Your task to perform on an android device: Open my contact list Image 0: 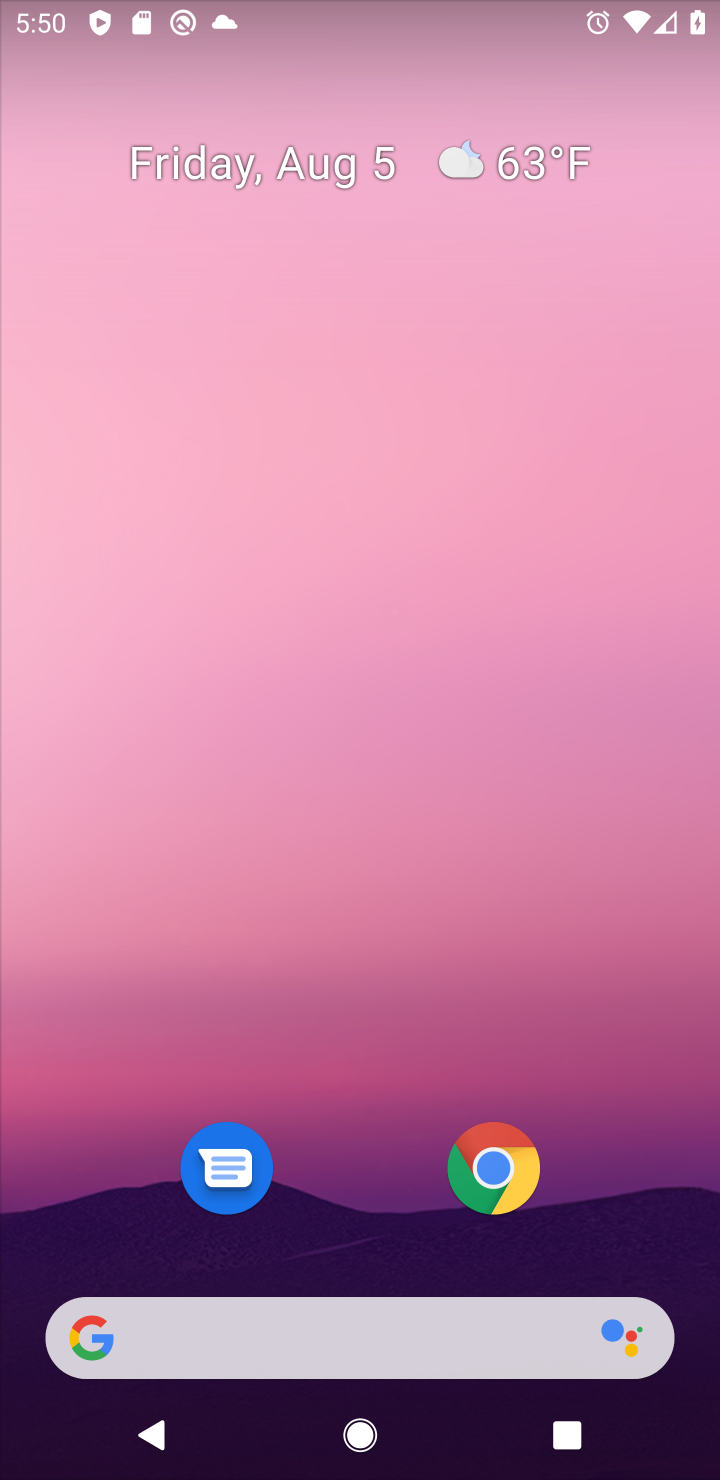
Step 0: drag from (336, 543) to (336, 16)
Your task to perform on an android device: Open my contact list Image 1: 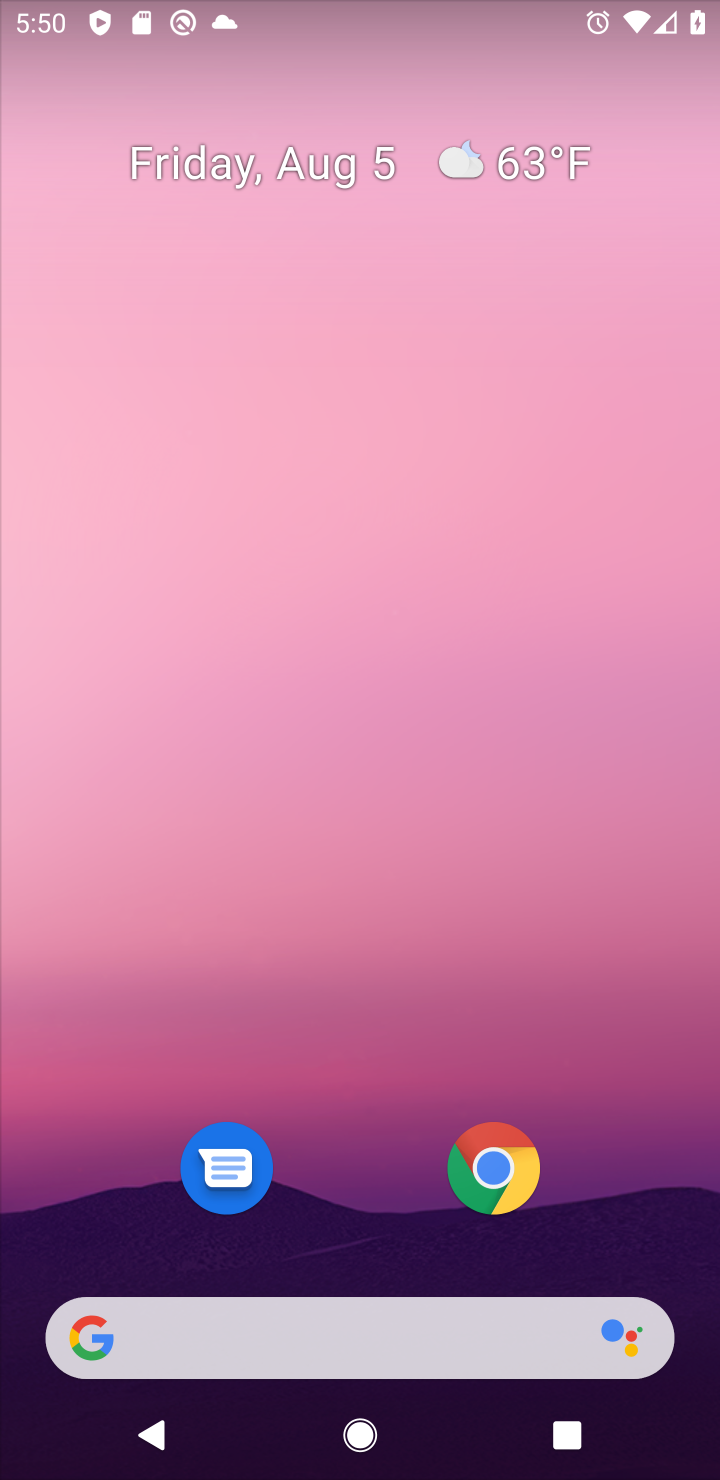
Step 1: drag from (364, 642) to (456, 30)
Your task to perform on an android device: Open my contact list Image 2: 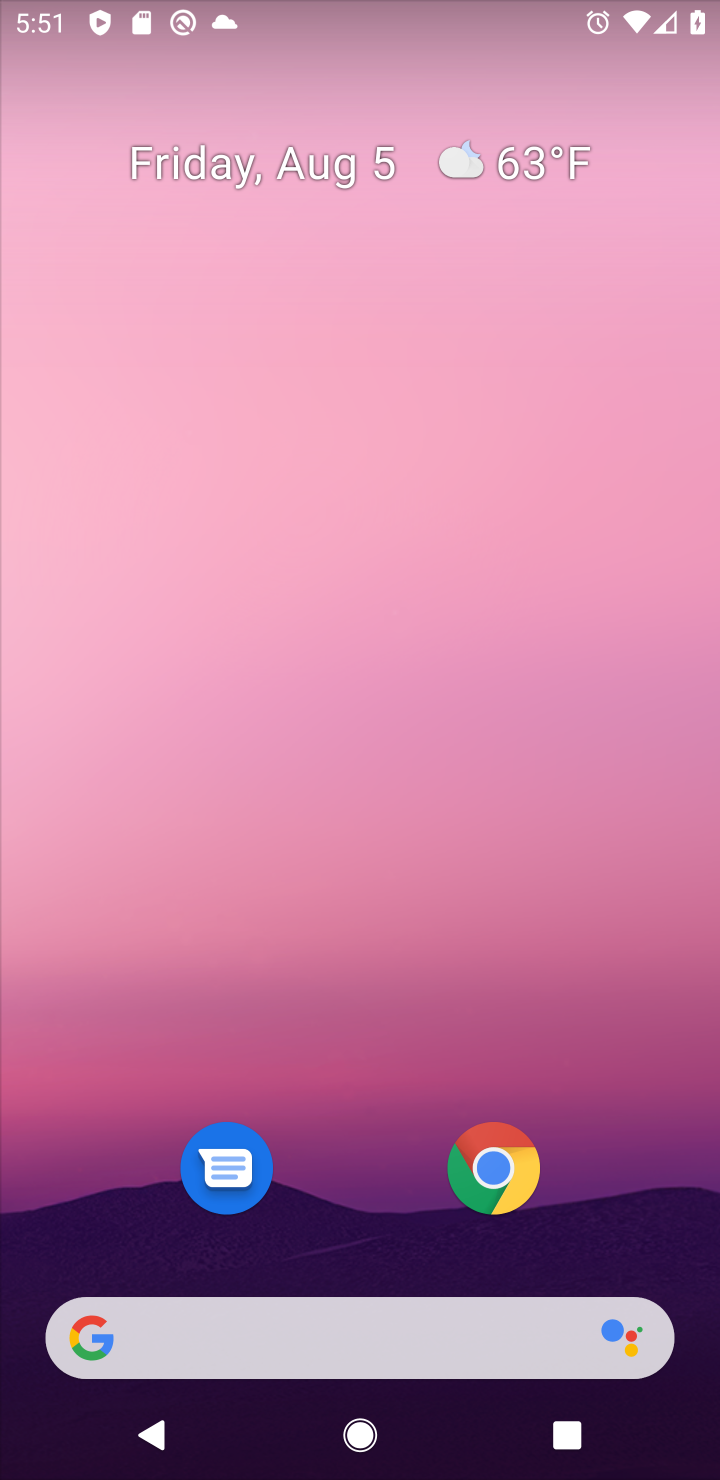
Step 2: drag from (395, 1216) to (243, 38)
Your task to perform on an android device: Open my contact list Image 3: 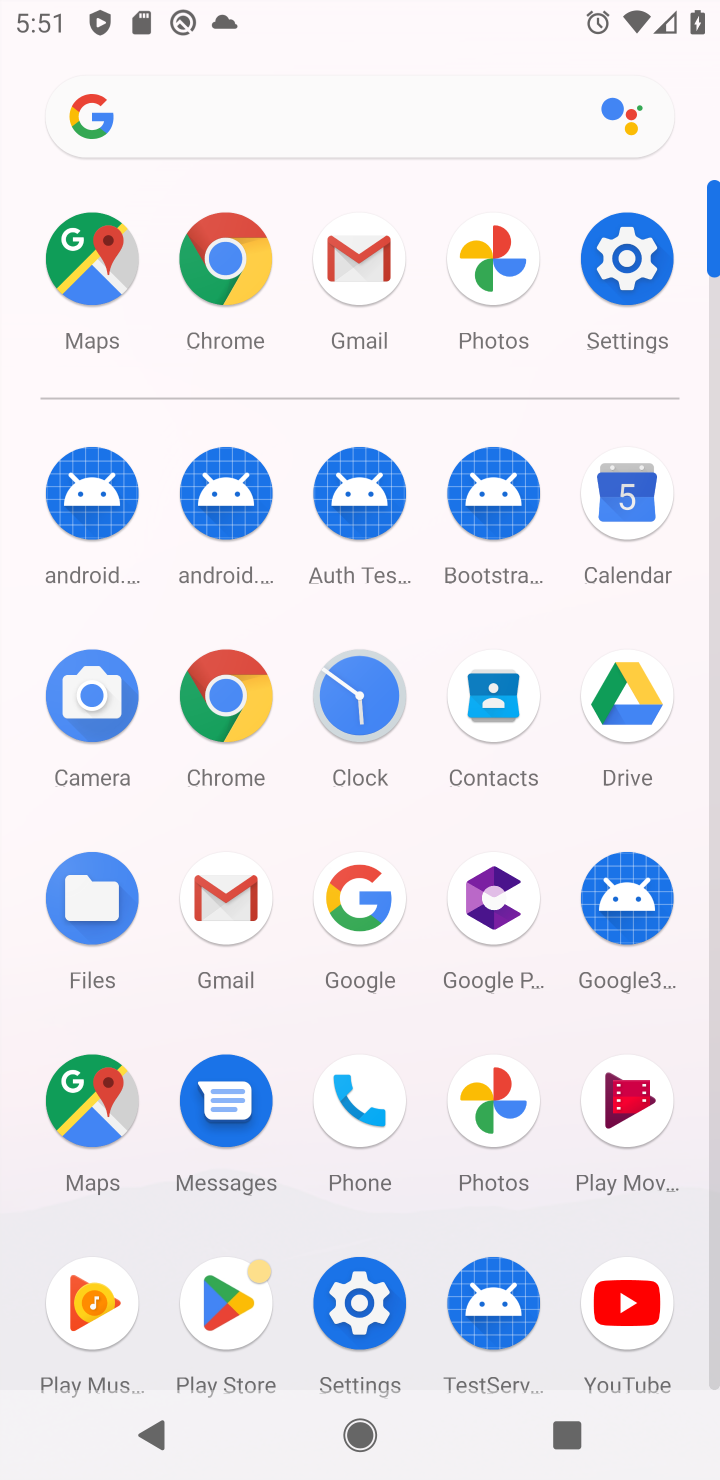
Step 3: click (504, 768)
Your task to perform on an android device: Open my contact list Image 4: 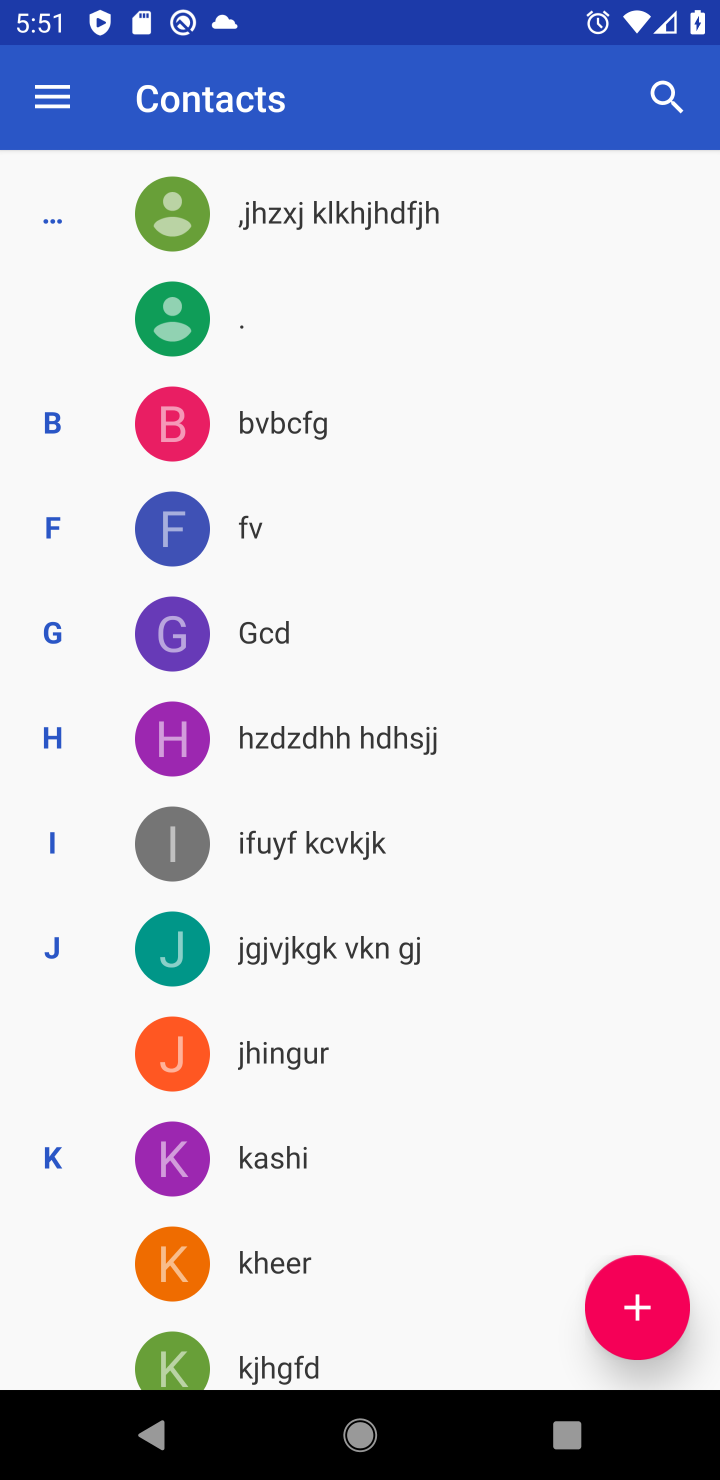
Step 4: task complete